Your task to perform on an android device: Go to Reddit.com Image 0: 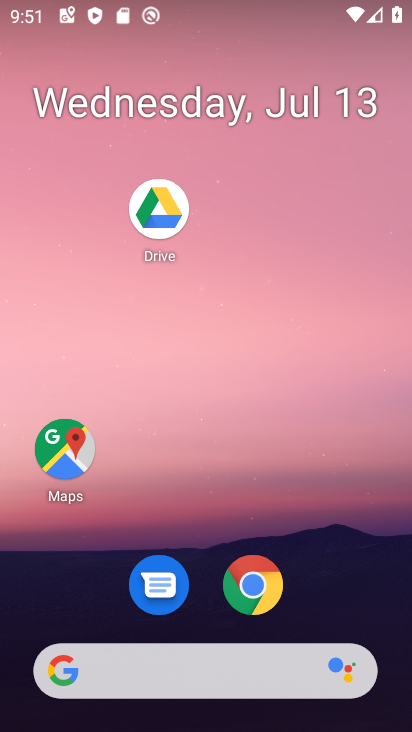
Step 0: click (260, 590)
Your task to perform on an android device: Go to Reddit.com Image 1: 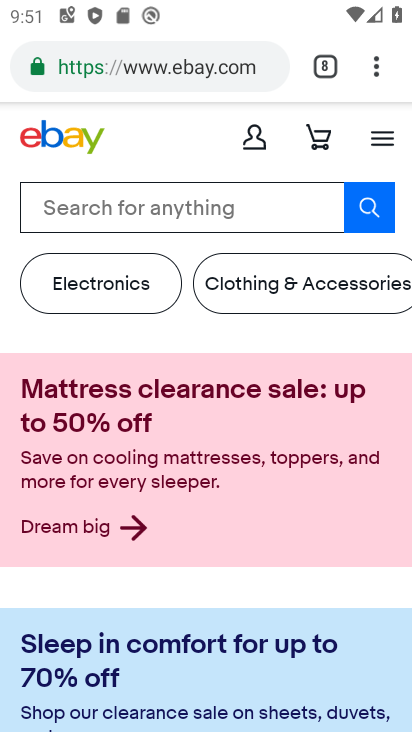
Step 1: drag from (374, 69) to (257, 128)
Your task to perform on an android device: Go to Reddit.com Image 2: 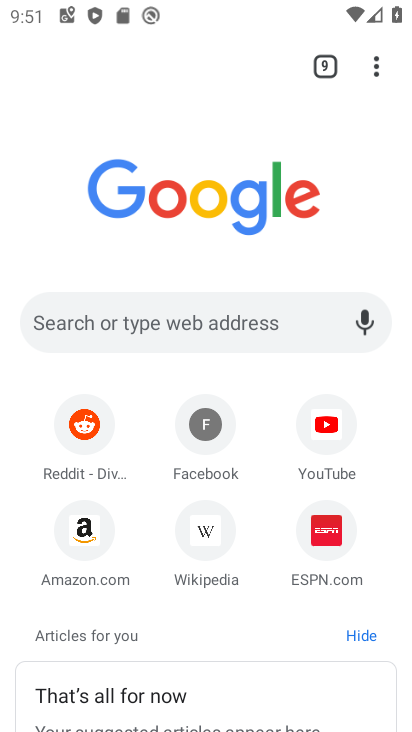
Step 2: click (85, 424)
Your task to perform on an android device: Go to Reddit.com Image 3: 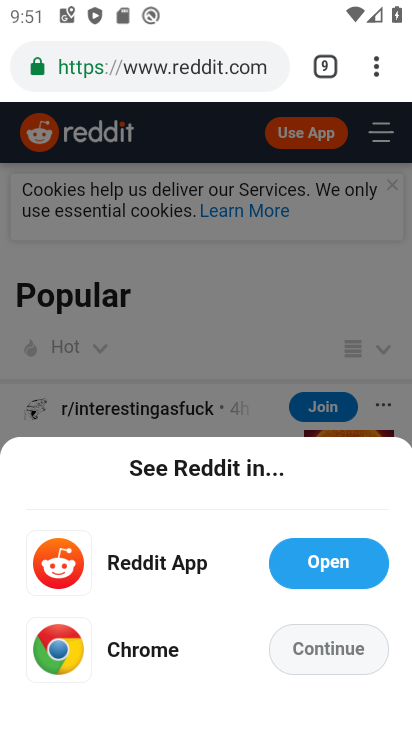
Step 3: task complete